Your task to perform on an android device: Search for seafood restaurants on Google Maps Image 0: 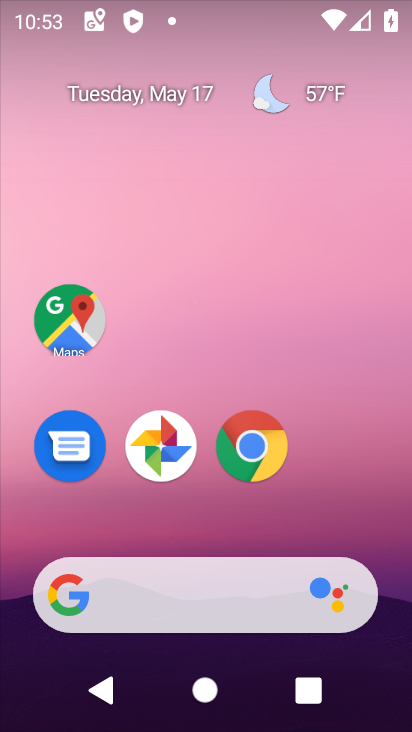
Step 0: click (41, 316)
Your task to perform on an android device: Search for seafood restaurants on Google Maps Image 1: 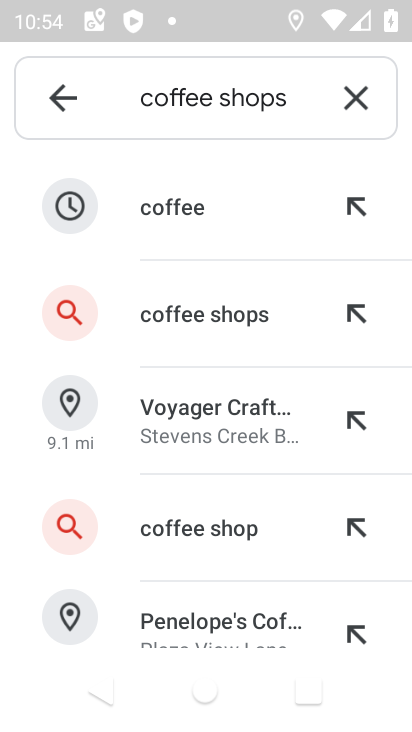
Step 1: click (363, 89)
Your task to perform on an android device: Search for seafood restaurants on Google Maps Image 2: 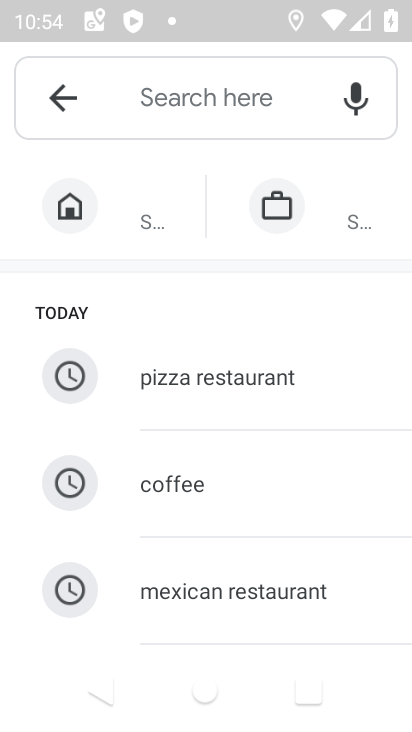
Step 2: click (200, 100)
Your task to perform on an android device: Search for seafood restaurants on Google Maps Image 3: 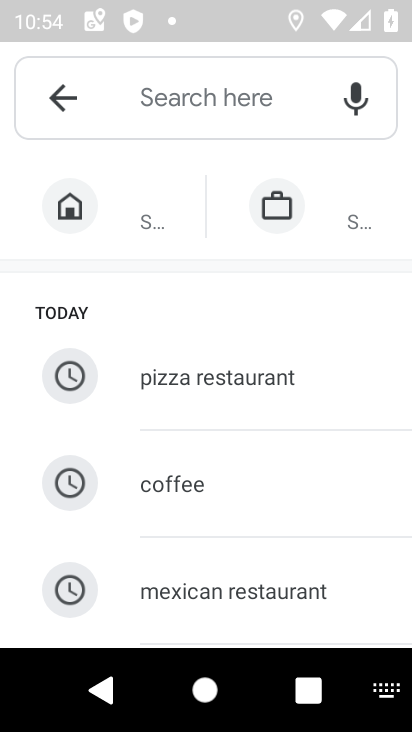
Step 3: type "seafood restaurants"
Your task to perform on an android device: Search for seafood restaurants on Google Maps Image 4: 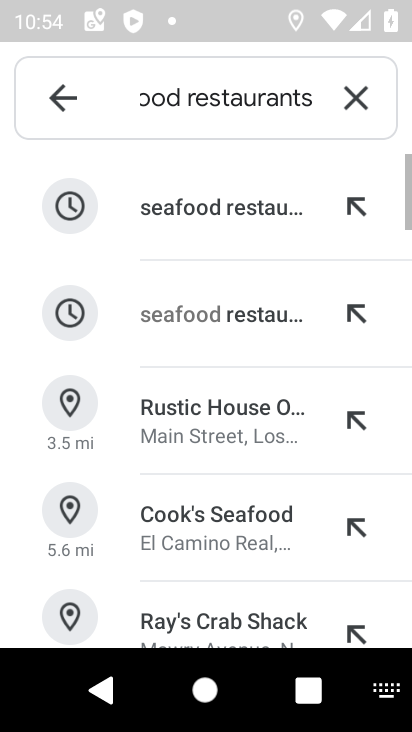
Step 4: click (248, 221)
Your task to perform on an android device: Search for seafood restaurants on Google Maps Image 5: 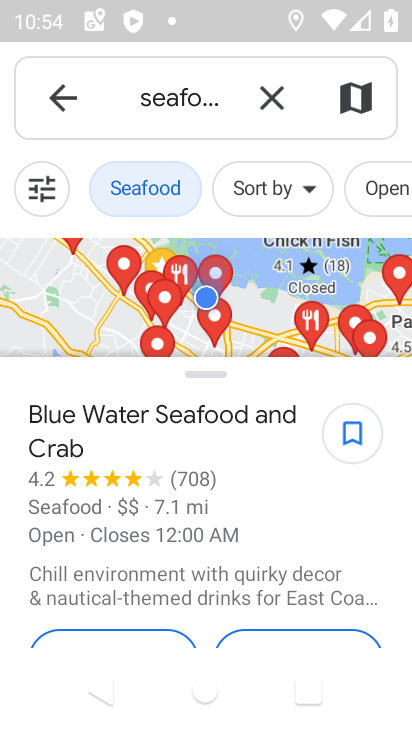
Step 5: task complete